Your task to perform on an android device: Open settings Image 0: 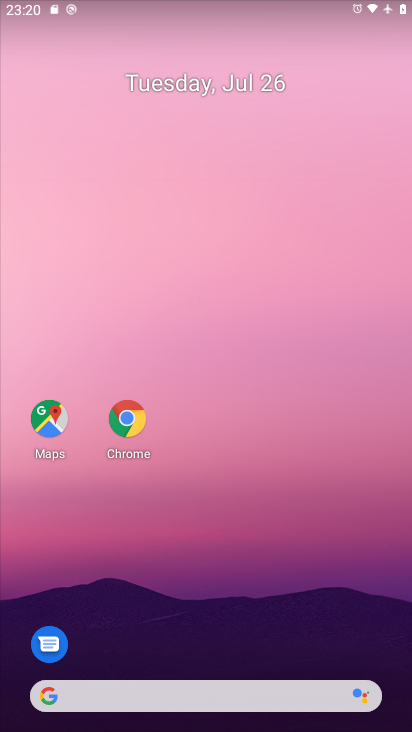
Step 0: drag from (270, 663) to (222, 268)
Your task to perform on an android device: Open settings Image 1: 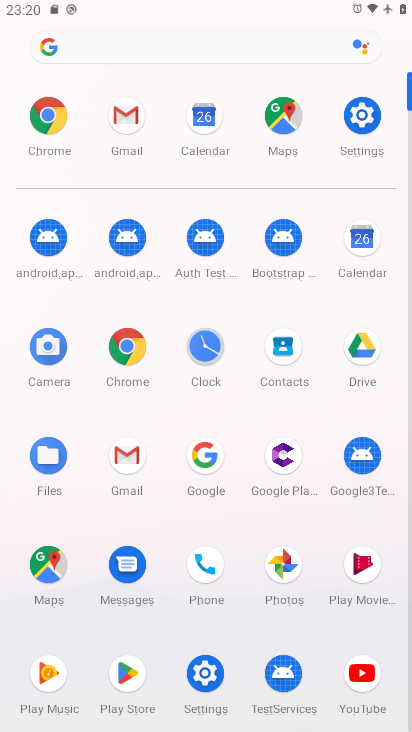
Step 1: click (353, 117)
Your task to perform on an android device: Open settings Image 2: 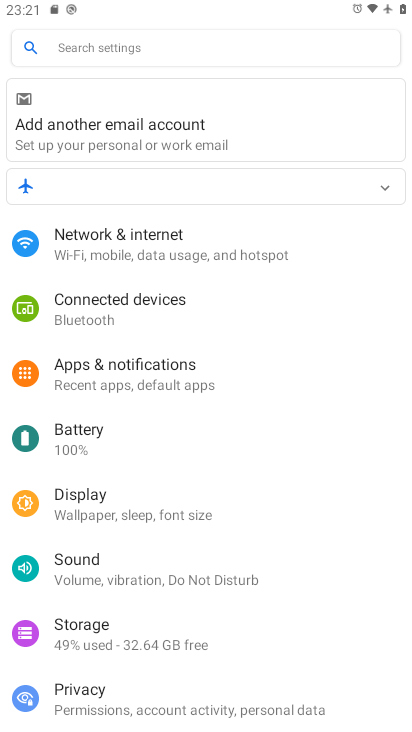
Step 2: task complete